Your task to perform on an android device: turn on the 12-hour format for clock Image 0: 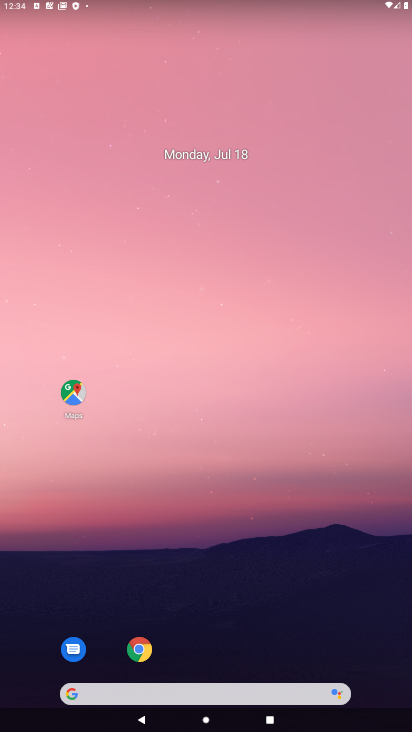
Step 0: drag from (366, 668) to (309, 301)
Your task to perform on an android device: turn on the 12-hour format for clock Image 1: 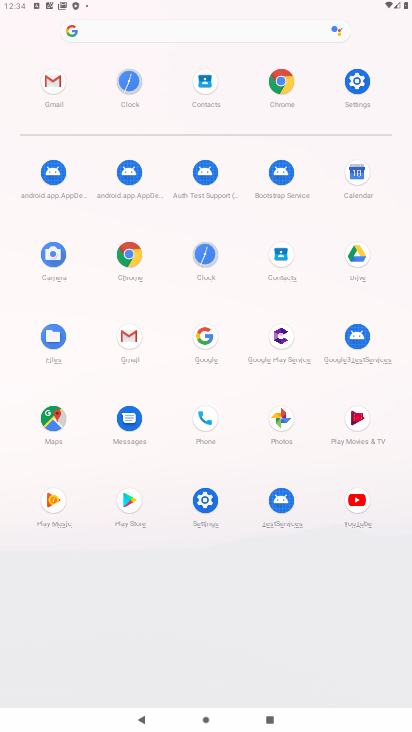
Step 1: click (204, 259)
Your task to perform on an android device: turn on the 12-hour format for clock Image 2: 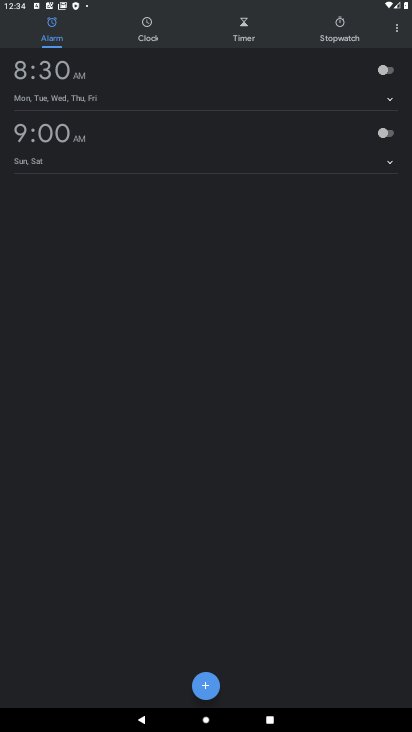
Step 2: click (396, 32)
Your task to perform on an android device: turn on the 12-hour format for clock Image 3: 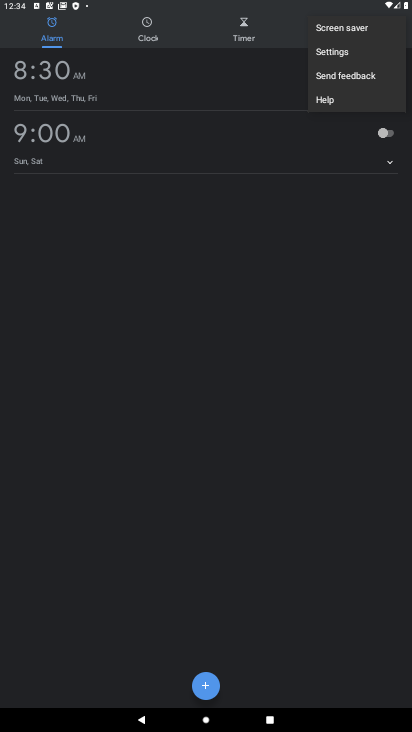
Step 3: click (331, 53)
Your task to perform on an android device: turn on the 12-hour format for clock Image 4: 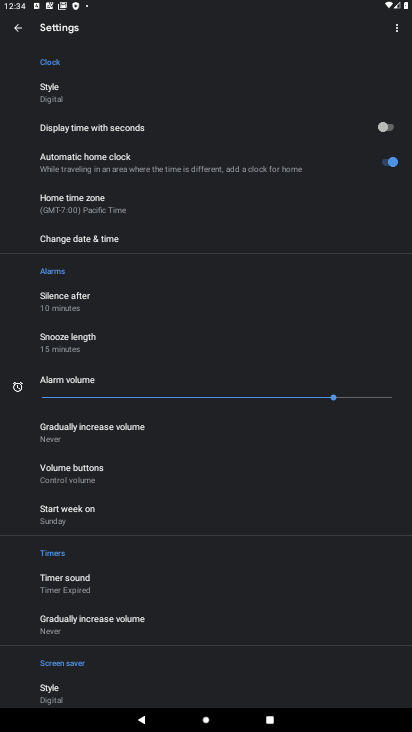
Step 4: click (69, 243)
Your task to perform on an android device: turn on the 12-hour format for clock Image 5: 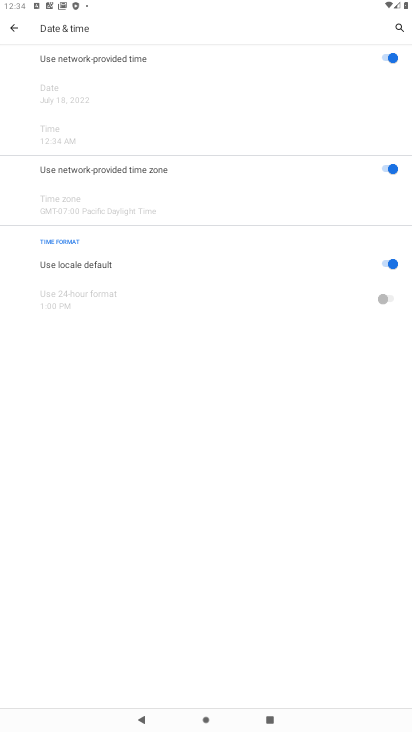
Step 5: task complete